Your task to perform on an android device: Show me productivity apps on the Play Store Image 0: 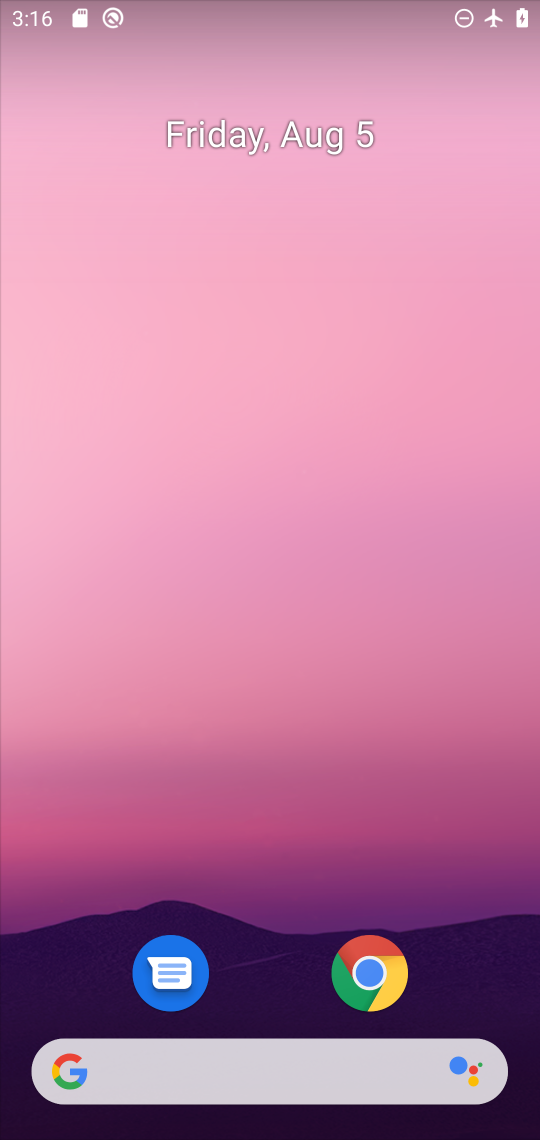
Step 0: drag from (318, 1032) to (386, 8)
Your task to perform on an android device: Show me productivity apps on the Play Store Image 1: 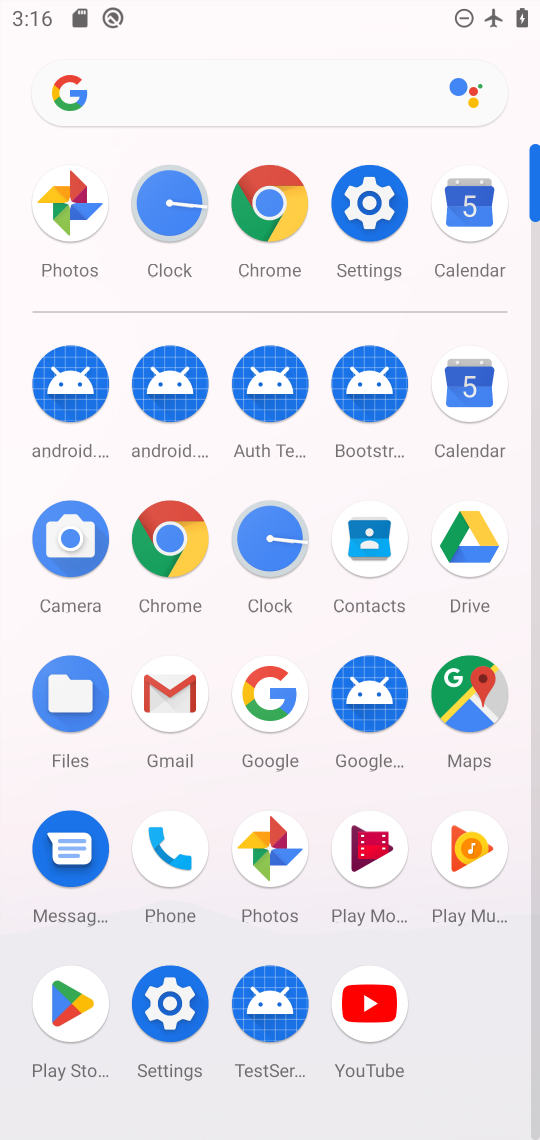
Step 1: click (76, 1002)
Your task to perform on an android device: Show me productivity apps on the Play Store Image 2: 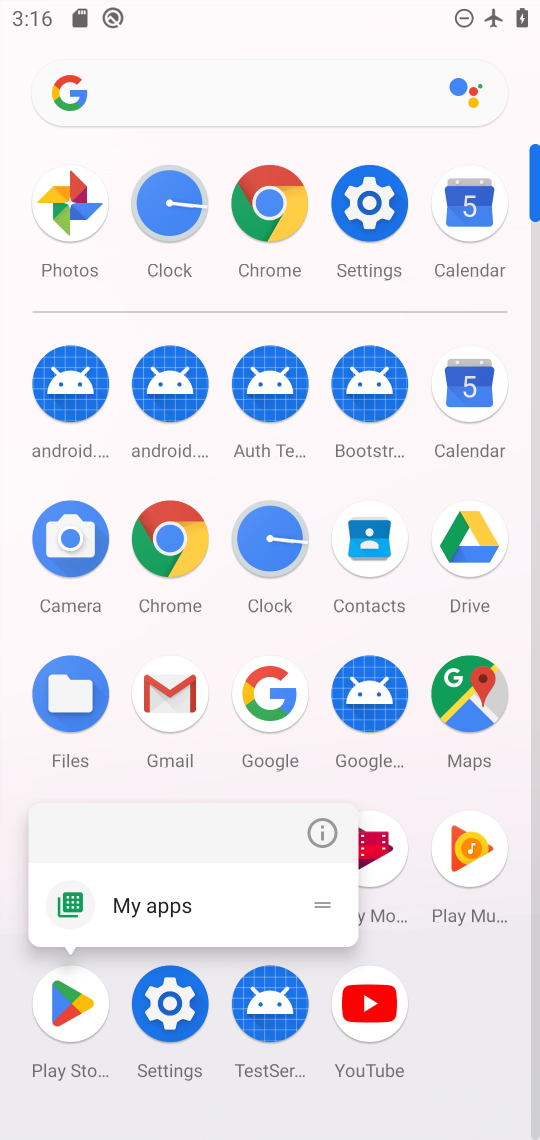
Step 2: click (70, 1003)
Your task to perform on an android device: Show me productivity apps on the Play Store Image 3: 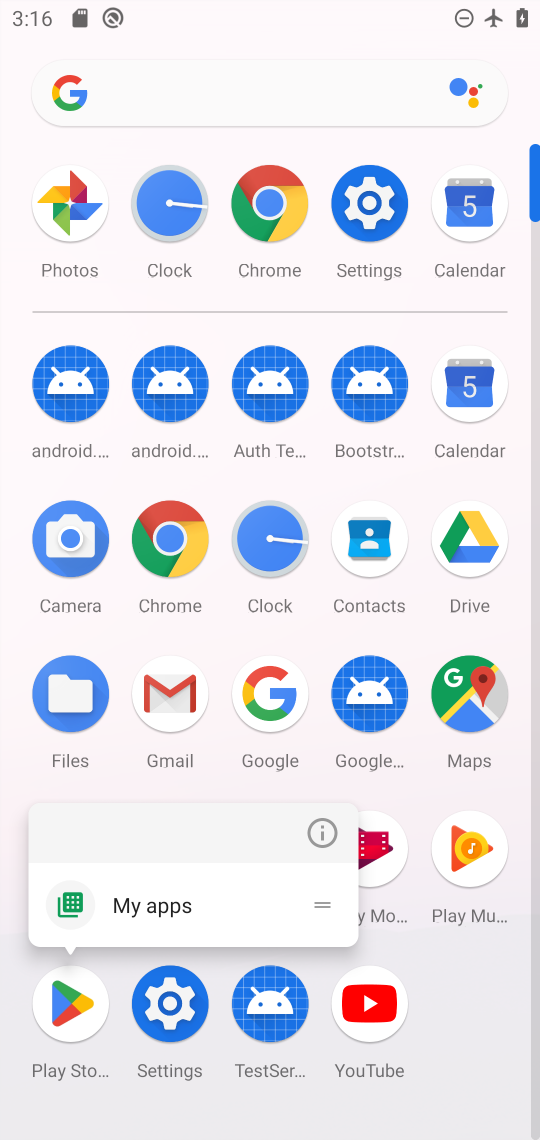
Step 3: click (71, 1002)
Your task to perform on an android device: Show me productivity apps on the Play Store Image 4: 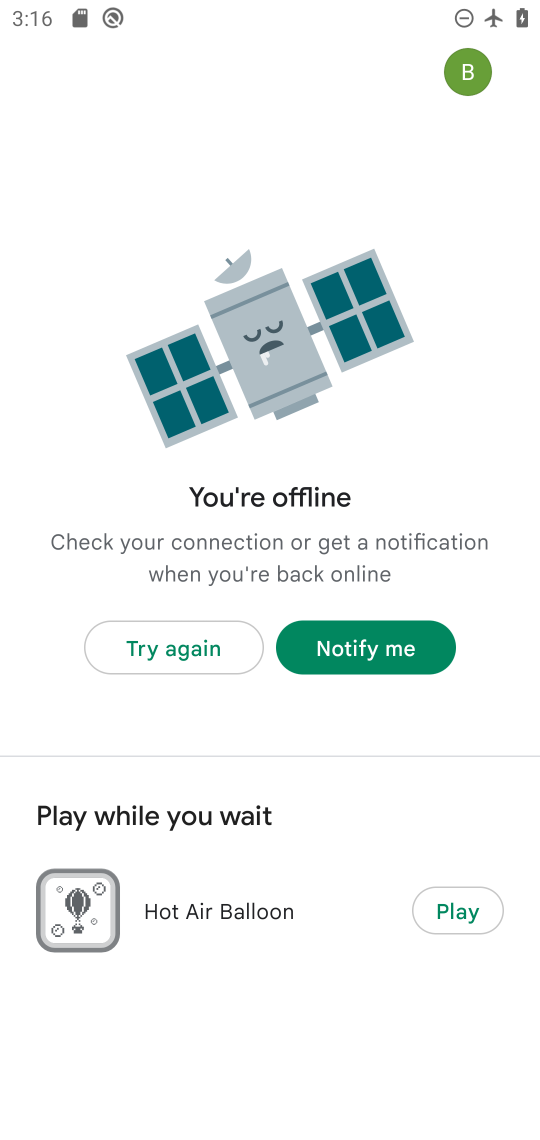
Step 4: click (167, 651)
Your task to perform on an android device: Show me productivity apps on the Play Store Image 5: 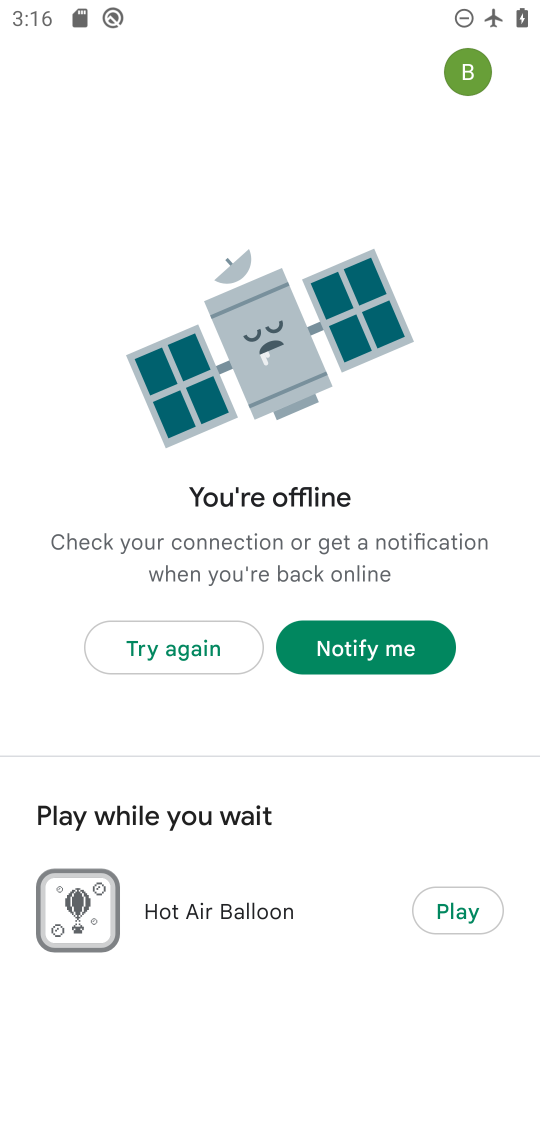
Step 5: task complete